Your task to perform on an android device: change your default location settings in chrome Image 0: 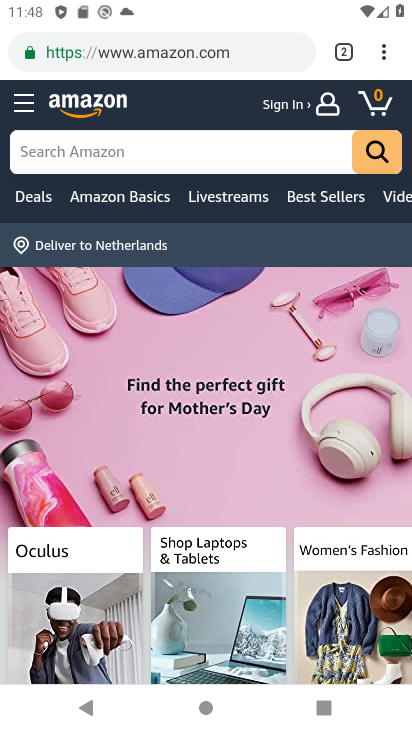
Step 0: press home button
Your task to perform on an android device: change your default location settings in chrome Image 1: 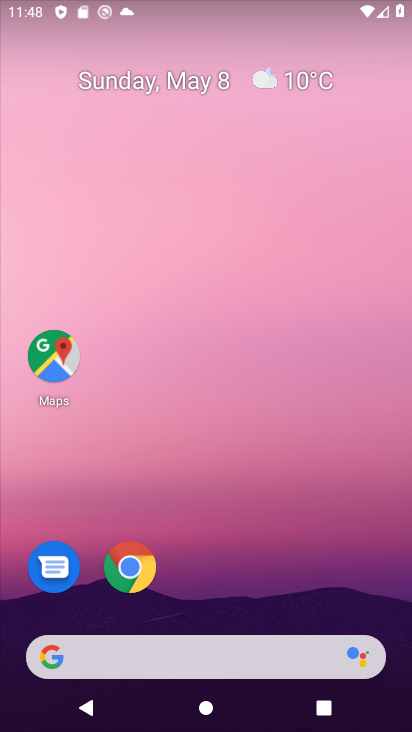
Step 1: drag from (186, 600) to (146, 6)
Your task to perform on an android device: change your default location settings in chrome Image 2: 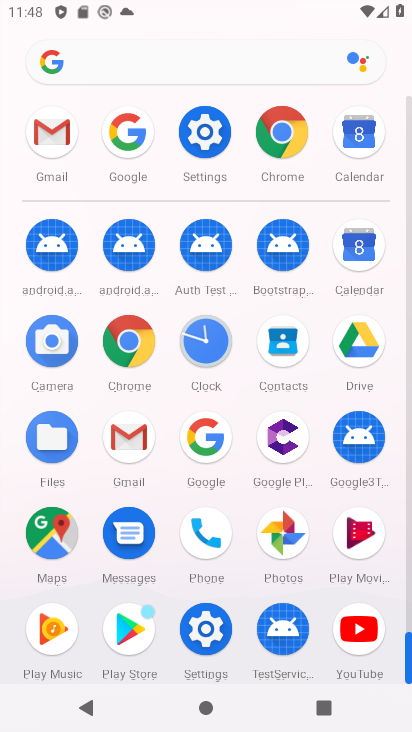
Step 2: click (289, 168)
Your task to perform on an android device: change your default location settings in chrome Image 3: 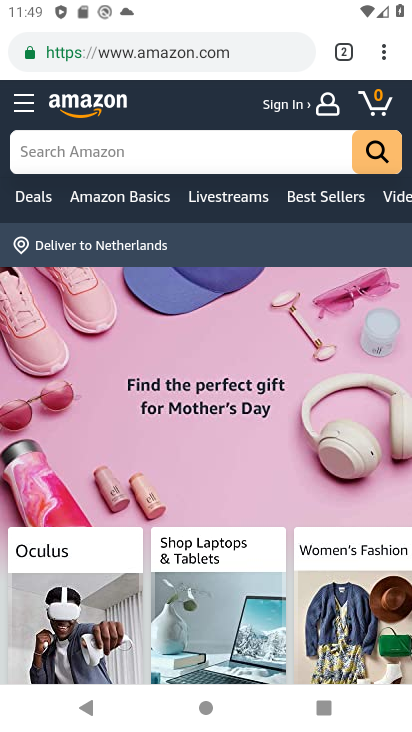
Step 3: click (391, 49)
Your task to perform on an android device: change your default location settings in chrome Image 4: 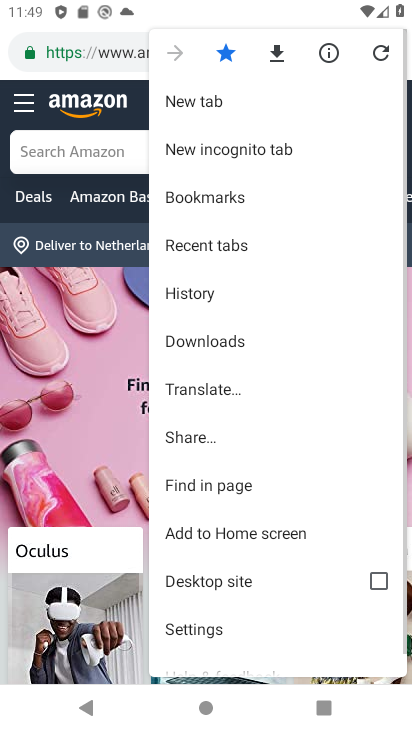
Step 4: drag from (271, 463) to (278, 146)
Your task to perform on an android device: change your default location settings in chrome Image 5: 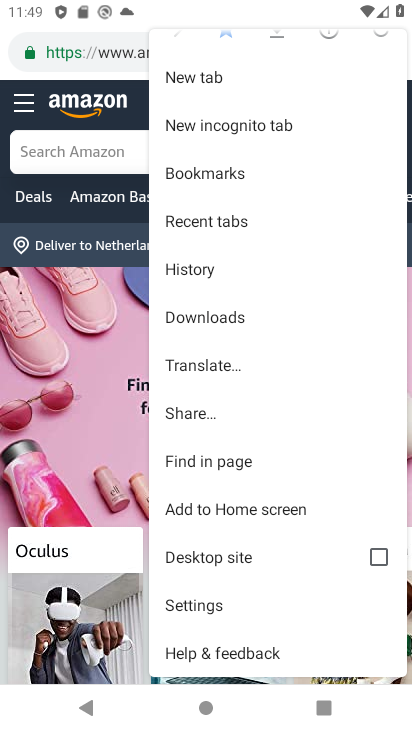
Step 5: click (227, 611)
Your task to perform on an android device: change your default location settings in chrome Image 6: 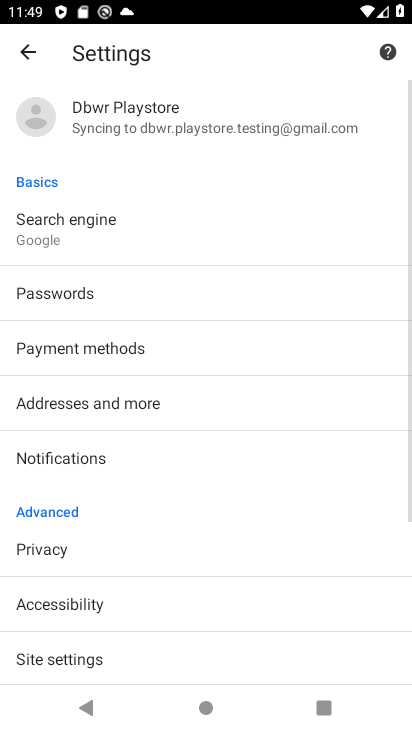
Step 6: drag from (199, 566) to (264, 258)
Your task to perform on an android device: change your default location settings in chrome Image 7: 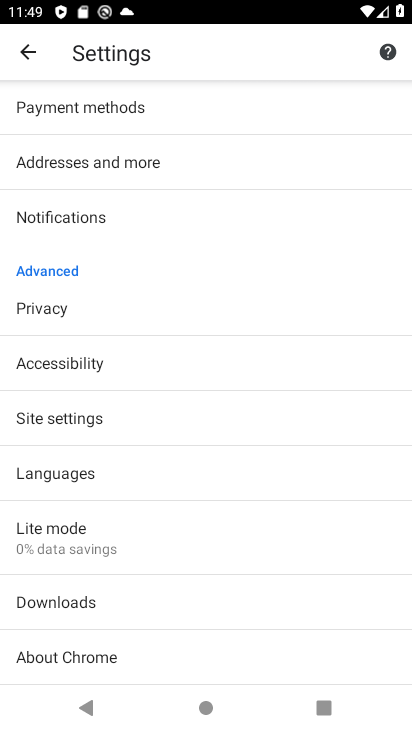
Step 7: click (54, 433)
Your task to perform on an android device: change your default location settings in chrome Image 8: 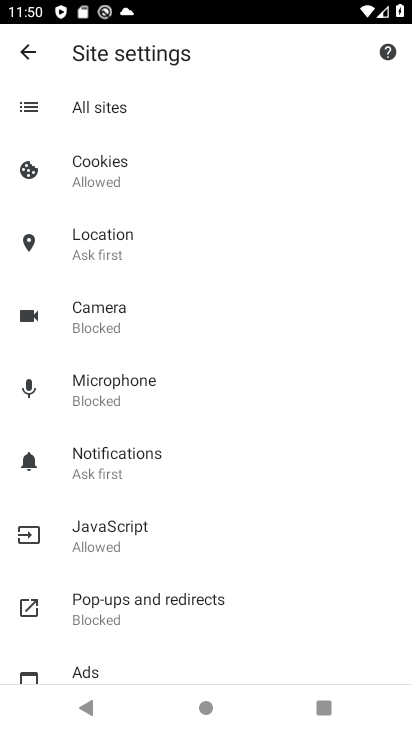
Step 8: drag from (111, 547) to (114, 400)
Your task to perform on an android device: change your default location settings in chrome Image 9: 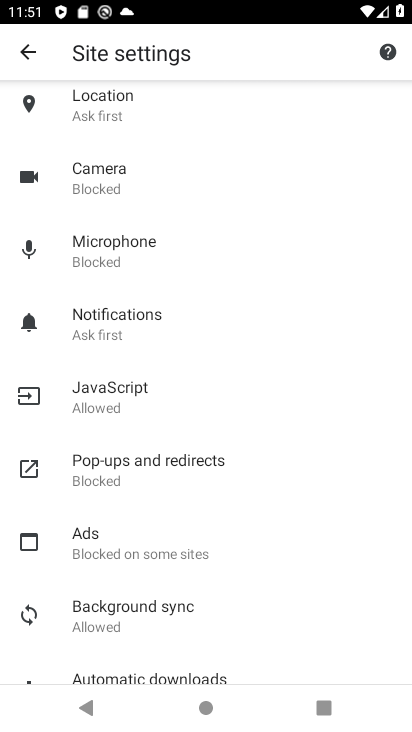
Step 9: drag from (240, 375) to (160, 730)
Your task to perform on an android device: change your default location settings in chrome Image 10: 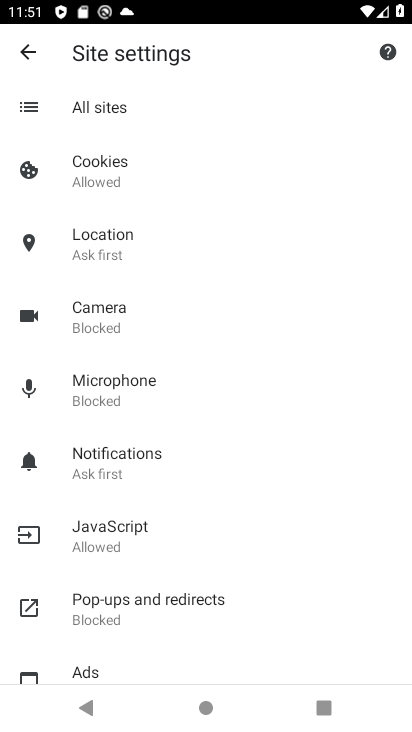
Step 10: click (143, 258)
Your task to perform on an android device: change your default location settings in chrome Image 11: 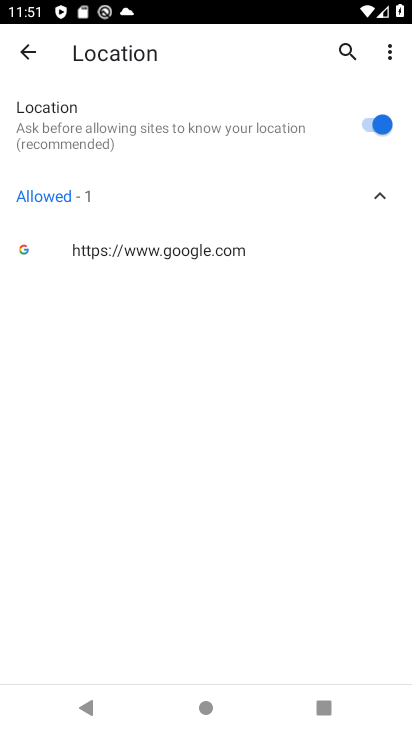
Step 11: click (377, 122)
Your task to perform on an android device: change your default location settings in chrome Image 12: 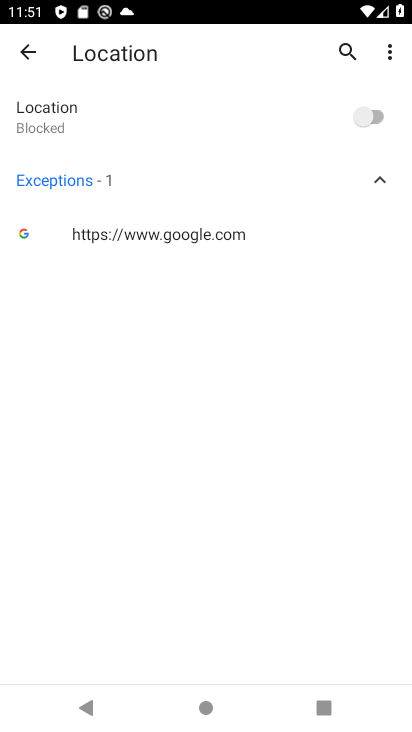
Step 12: task complete